Your task to perform on an android device: turn on bluetooth scan Image 0: 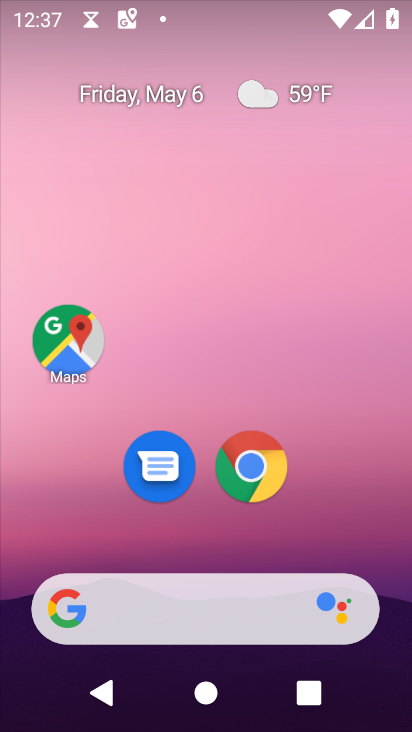
Step 0: drag from (365, 537) to (279, 138)
Your task to perform on an android device: turn on bluetooth scan Image 1: 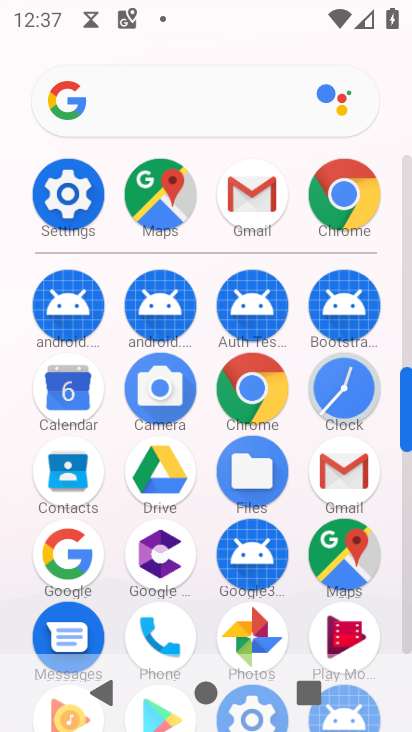
Step 1: click (70, 186)
Your task to perform on an android device: turn on bluetooth scan Image 2: 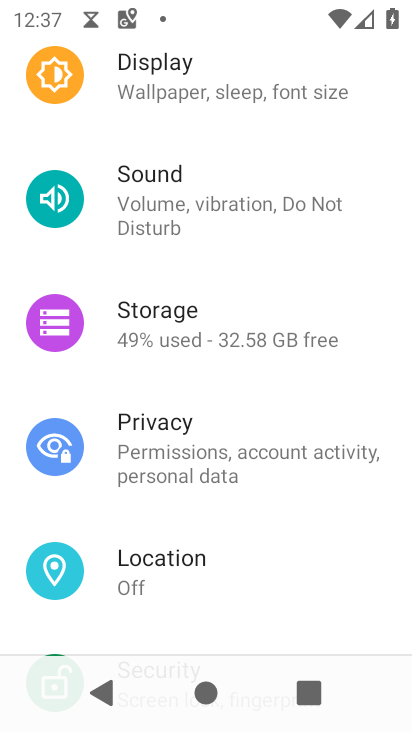
Step 2: click (166, 592)
Your task to perform on an android device: turn on bluetooth scan Image 3: 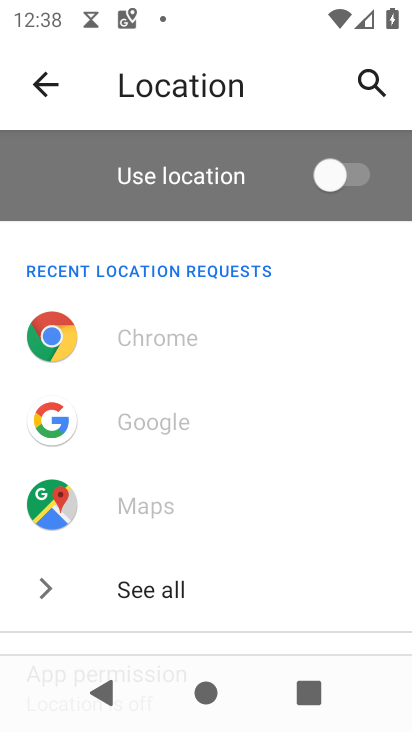
Step 3: drag from (263, 480) to (204, 102)
Your task to perform on an android device: turn on bluetooth scan Image 4: 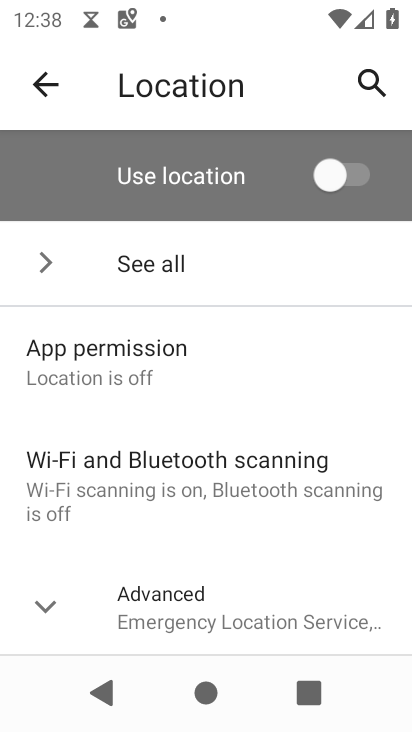
Step 4: click (248, 460)
Your task to perform on an android device: turn on bluetooth scan Image 5: 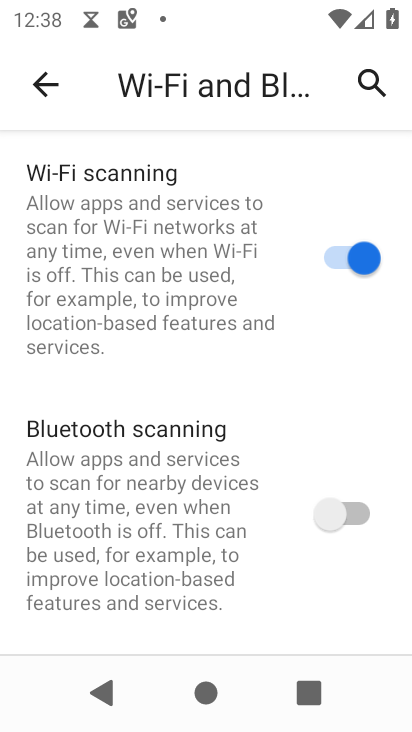
Step 5: click (369, 512)
Your task to perform on an android device: turn on bluetooth scan Image 6: 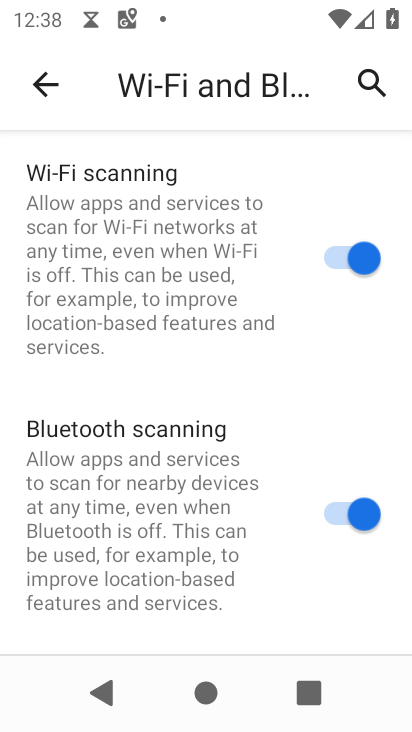
Step 6: task complete